Your task to perform on an android device: What's the weather today? Image 0: 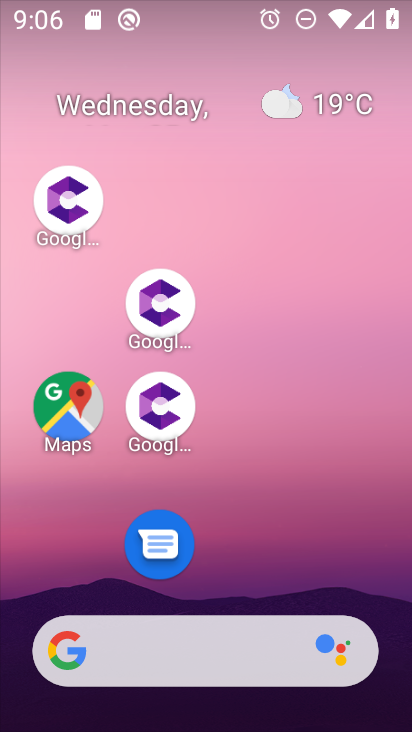
Step 0: drag from (281, 491) to (166, 44)
Your task to perform on an android device: What's the weather today? Image 1: 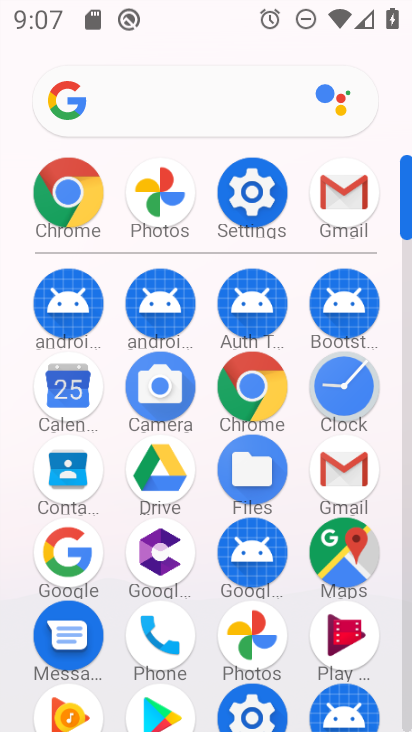
Step 1: click (122, 103)
Your task to perform on an android device: What's the weather today? Image 2: 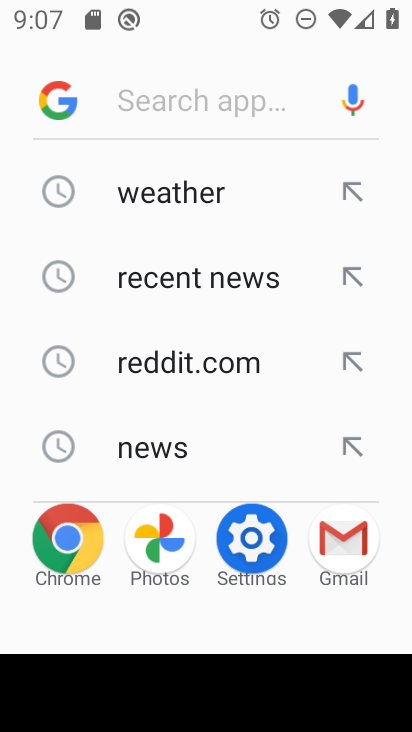
Step 2: click (172, 179)
Your task to perform on an android device: What's the weather today? Image 3: 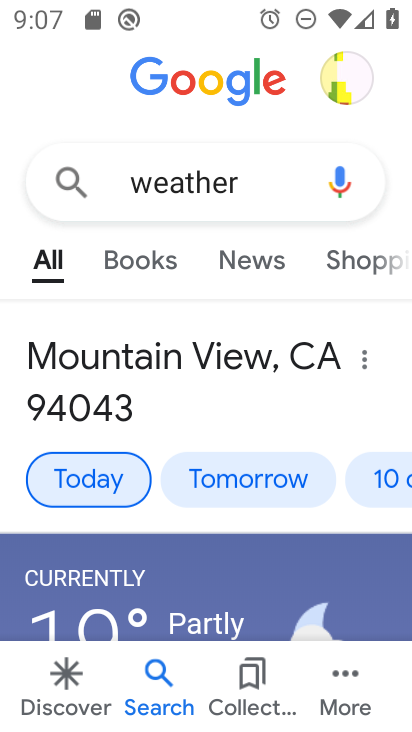
Step 3: task complete